Your task to perform on an android device: move a message to another label in the gmail app Image 0: 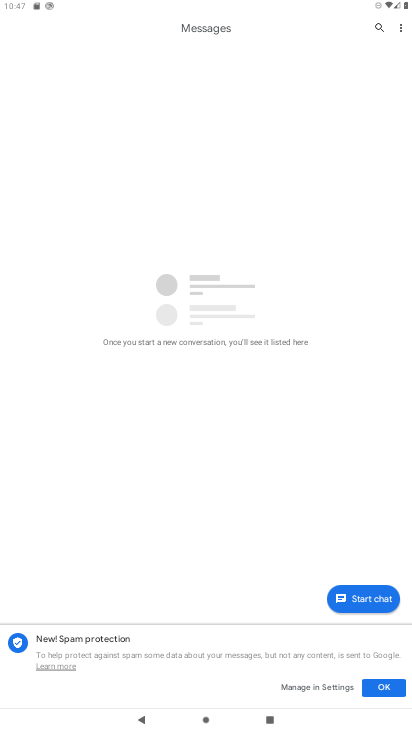
Step 0: press home button
Your task to perform on an android device: move a message to another label in the gmail app Image 1: 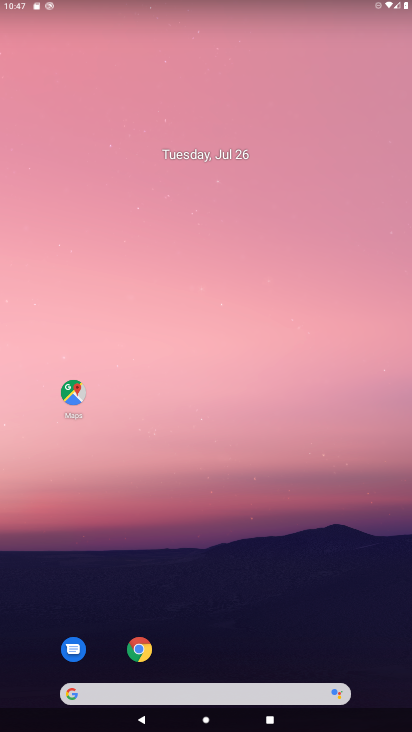
Step 1: drag from (214, 501) to (238, 164)
Your task to perform on an android device: move a message to another label in the gmail app Image 2: 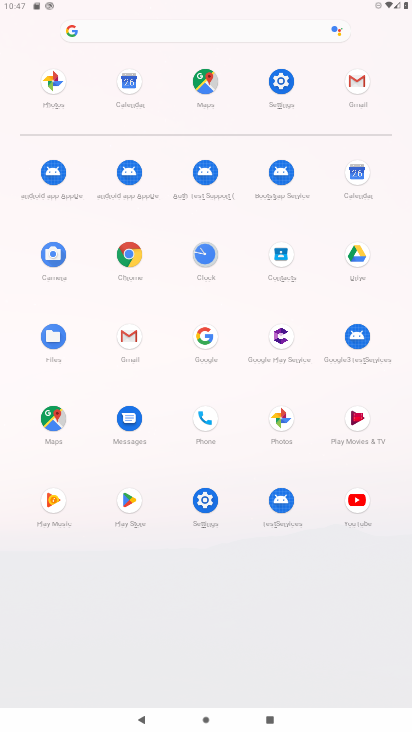
Step 2: click (361, 85)
Your task to perform on an android device: move a message to another label in the gmail app Image 3: 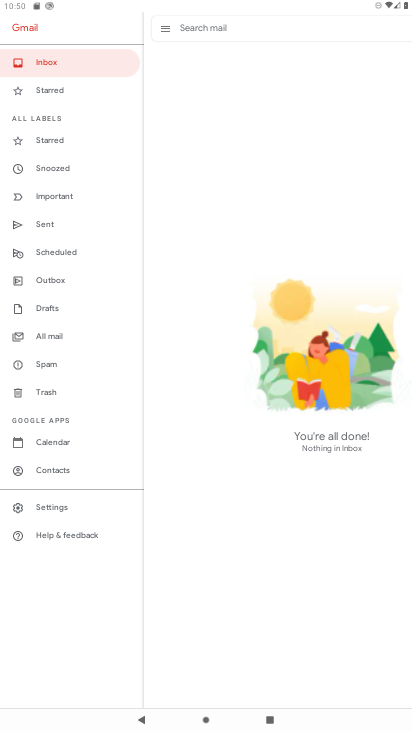
Step 3: task complete